Your task to perform on an android device: toggle improve location accuracy Image 0: 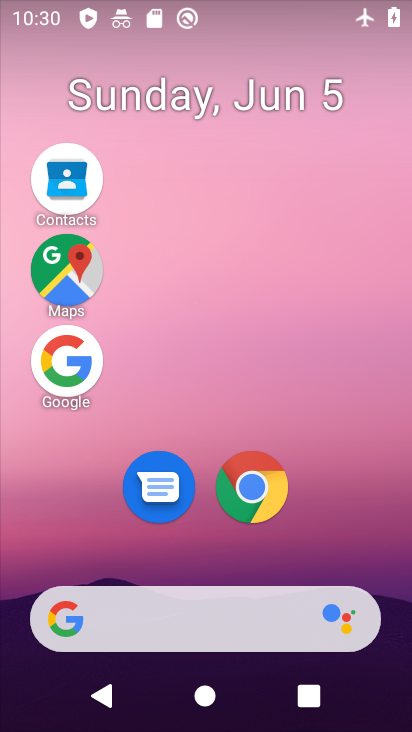
Step 0: drag from (151, 550) to (166, 244)
Your task to perform on an android device: toggle improve location accuracy Image 1: 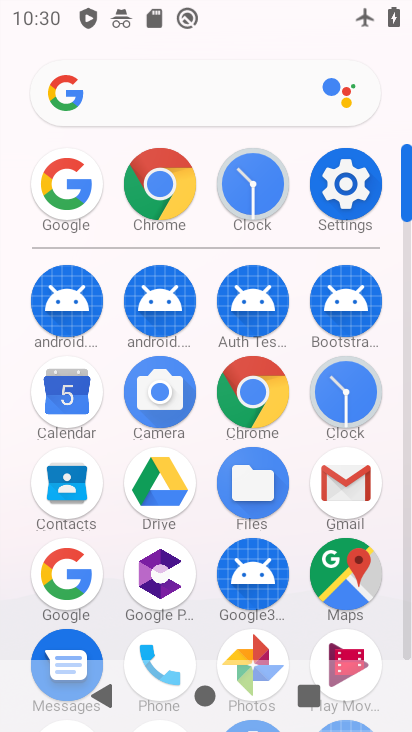
Step 1: click (361, 188)
Your task to perform on an android device: toggle improve location accuracy Image 2: 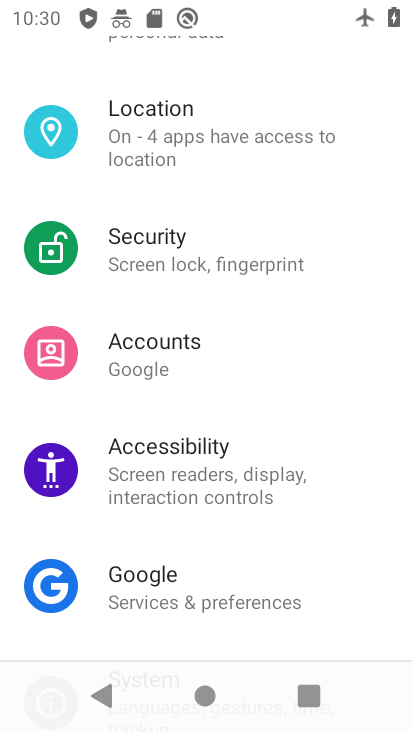
Step 2: drag from (191, 498) to (186, 583)
Your task to perform on an android device: toggle improve location accuracy Image 3: 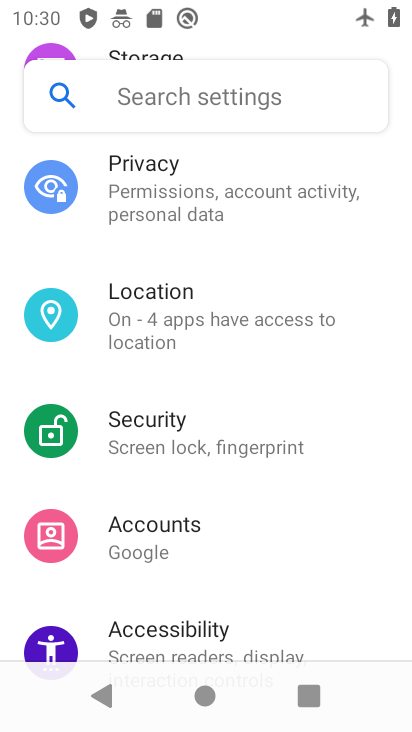
Step 3: drag from (196, 309) to (187, 583)
Your task to perform on an android device: toggle improve location accuracy Image 4: 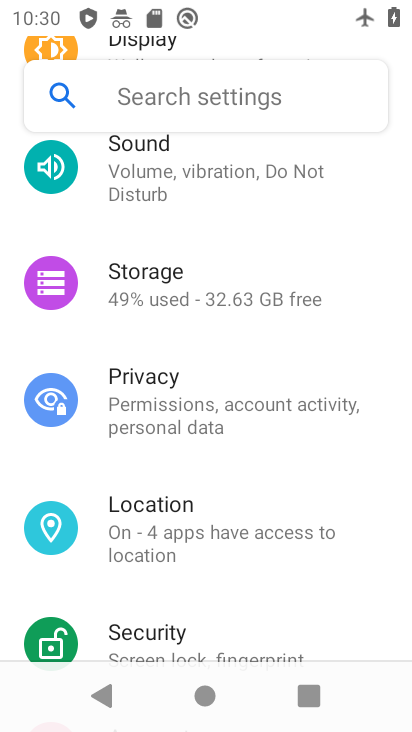
Step 4: drag from (149, 318) to (161, 621)
Your task to perform on an android device: toggle improve location accuracy Image 5: 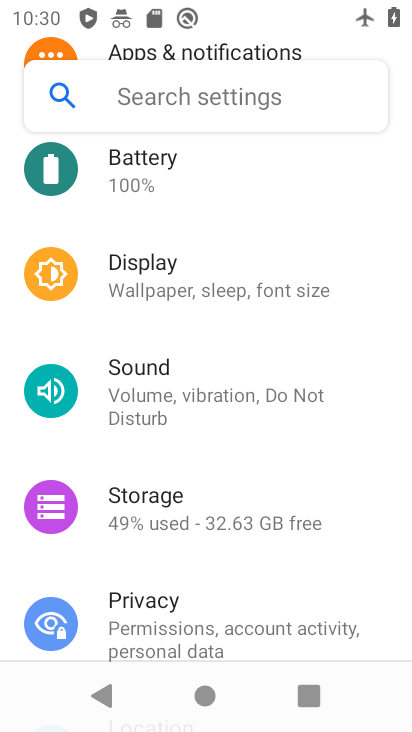
Step 5: drag from (132, 348) to (129, 543)
Your task to perform on an android device: toggle improve location accuracy Image 6: 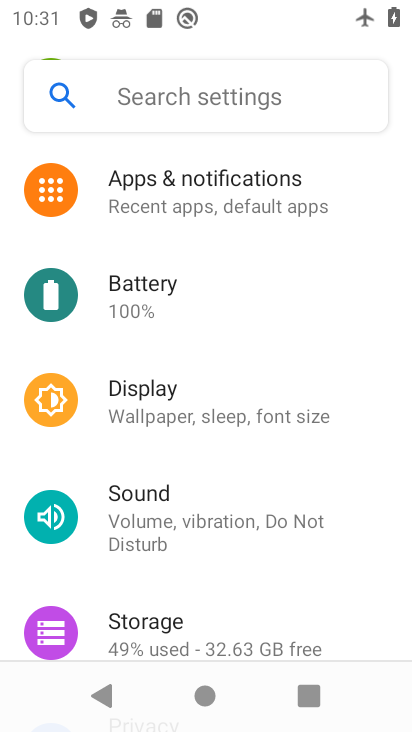
Step 6: drag from (179, 558) to (141, 267)
Your task to perform on an android device: toggle improve location accuracy Image 7: 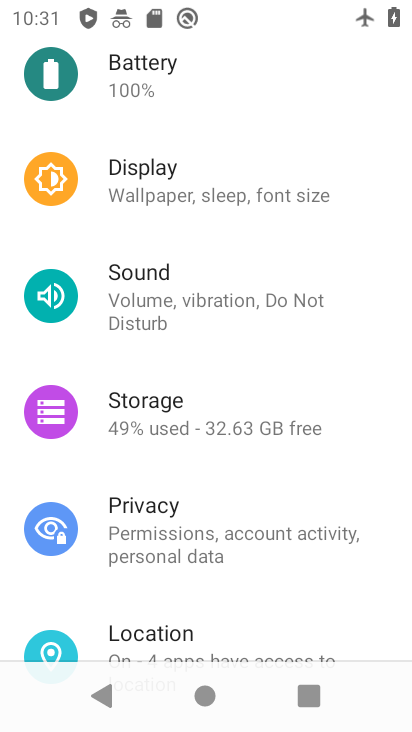
Step 7: click (218, 630)
Your task to perform on an android device: toggle improve location accuracy Image 8: 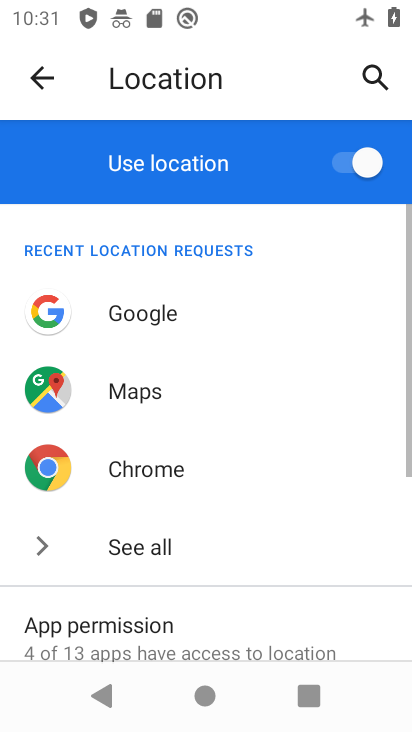
Step 8: drag from (203, 515) to (226, 349)
Your task to perform on an android device: toggle improve location accuracy Image 9: 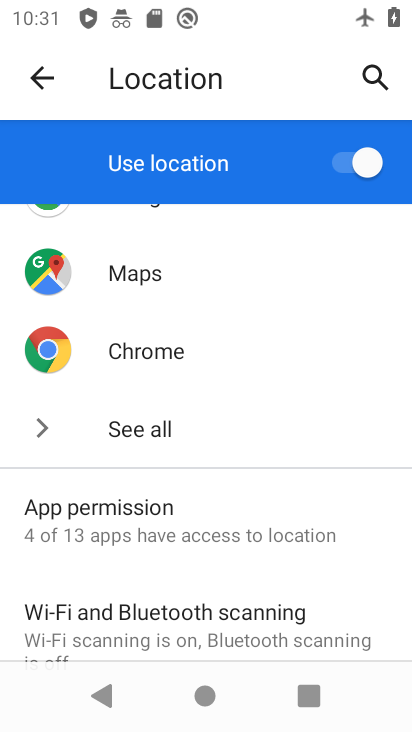
Step 9: drag from (210, 549) to (212, 289)
Your task to perform on an android device: toggle improve location accuracy Image 10: 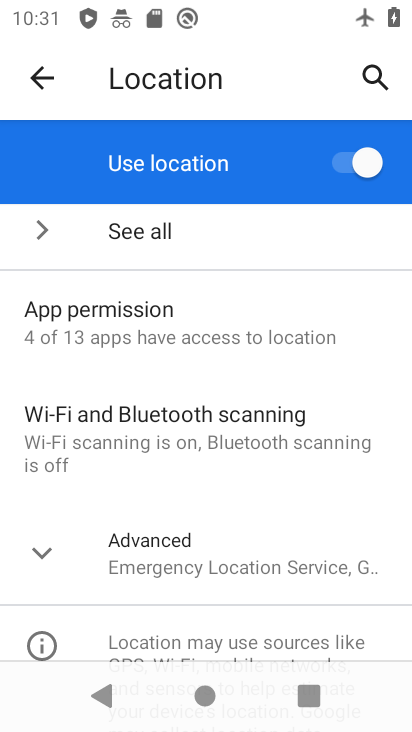
Step 10: click (182, 569)
Your task to perform on an android device: toggle improve location accuracy Image 11: 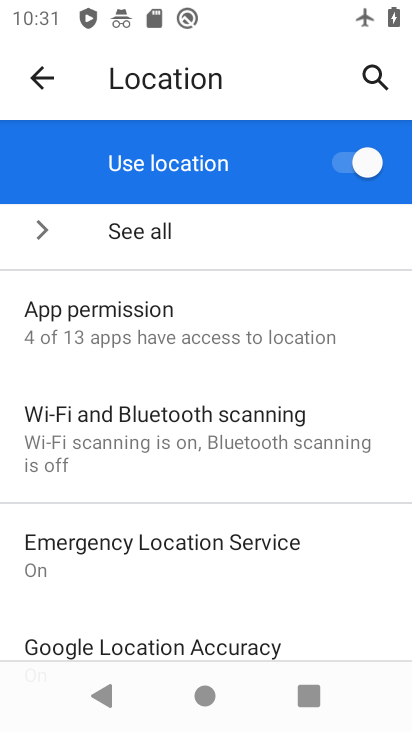
Step 11: click (184, 638)
Your task to perform on an android device: toggle improve location accuracy Image 12: 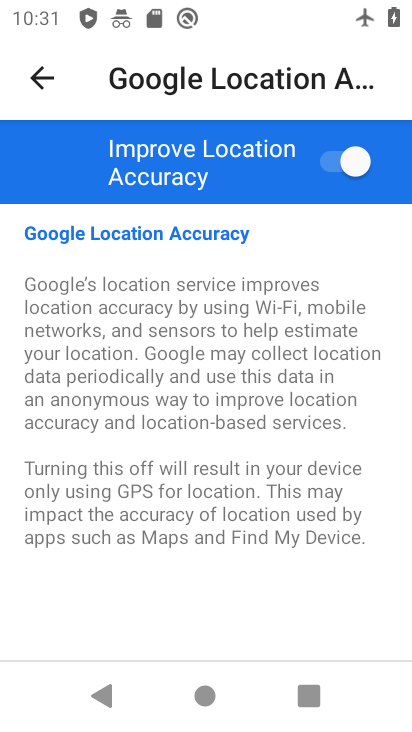
Step 12: click (322, 169)
Your task to perform on an android device: toggle improve location accuracy Image 13: 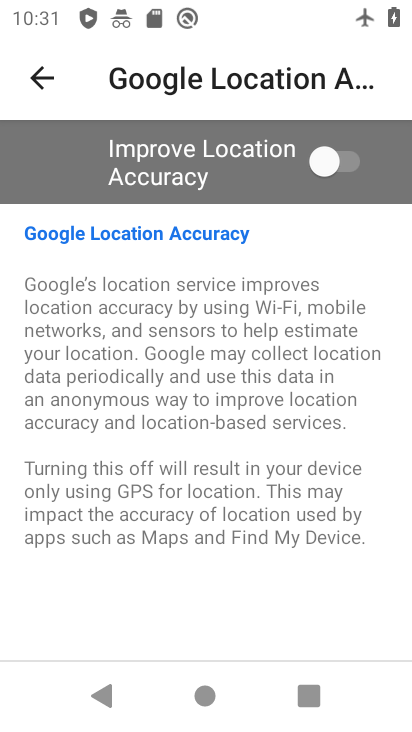
Step 13: task complete